Your task to perform on an android device: Search for vegetarian restaurants on Maps Image 0: 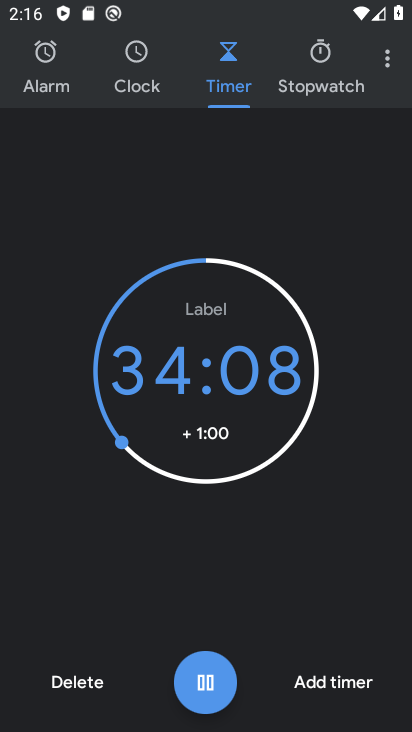
Step 0: press back button
Your task to perform on an android device: Search for vegetarian restaurants on Maps Image 1: 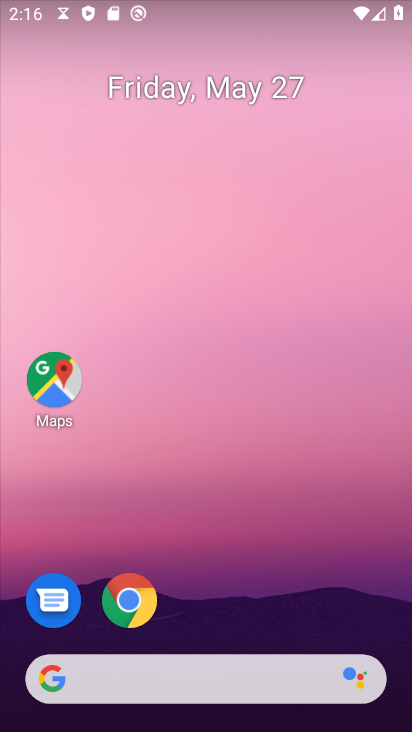
Step 1: drag from (231, 589) to (222, 67)
Your task to perform on an android device: Search for vegetarian restaurants on Maps Image 2: 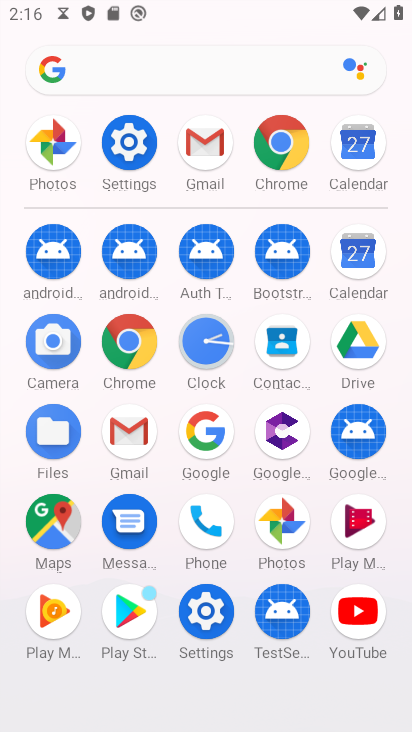
Step 2: click (47, 515)
Your task to perform on an android device: Search for vegetarian restaurants on Maps Image 3: 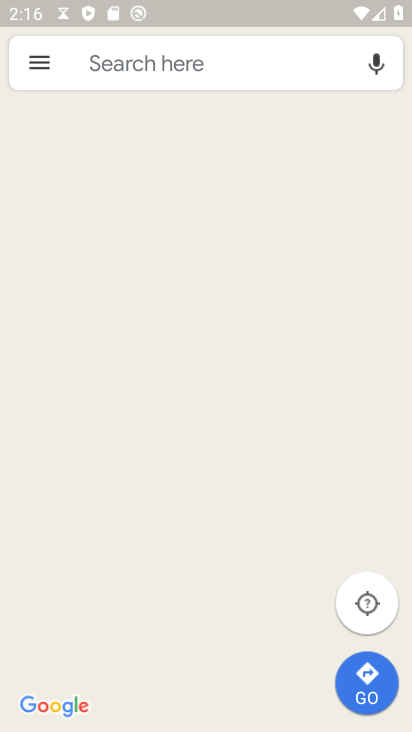
Step 3: click (256, 63)
Your task to perform on an android device: Search for vegetarian restaurants on Maps Image 4: 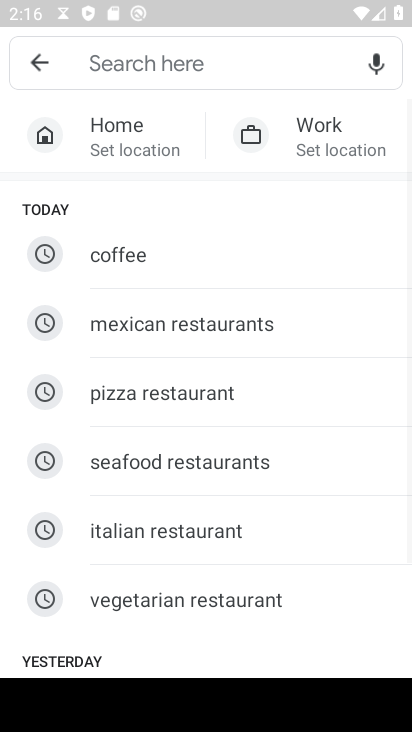
Step 4: type " vegetarian restaurants"
Your task to perform on an android device: Search for vegetarian restaurants on Maps Image 5: 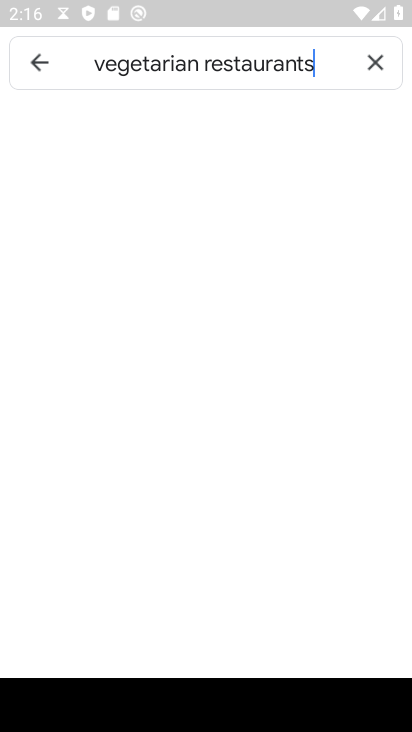
Step 5: type ""
Your task to perform on an android device: Search for vegetarian restaurants on Maps Image 6: 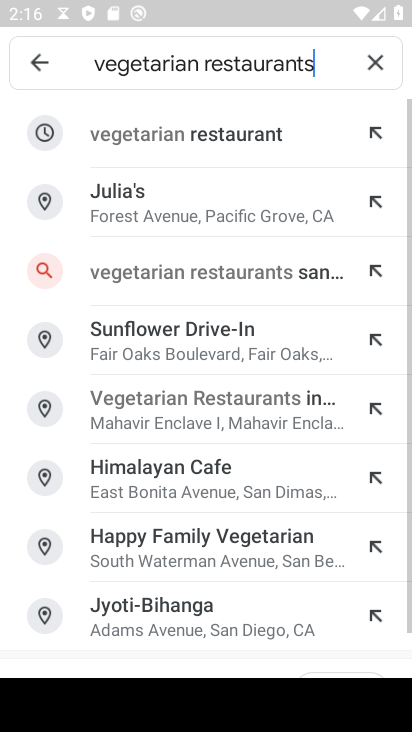
Step 6: click (195, 143)
Your task to perform on an android device: Search for vegetarian restaurants on Maps Image 7: 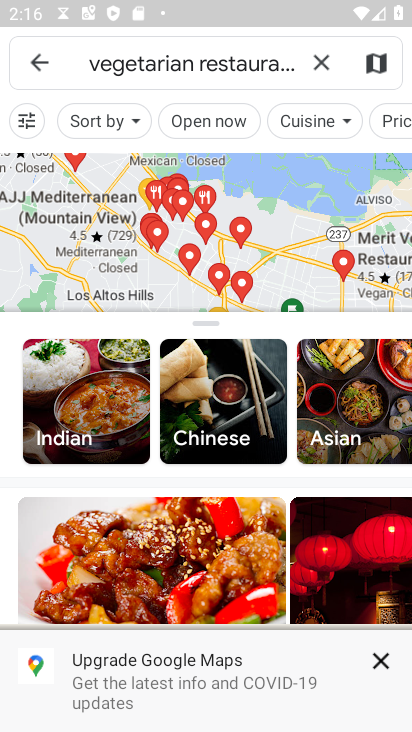
Step 7: click (383, 656)
Your task to perform on an android device: Search for vegetarian restaurants on Maps Image 8: 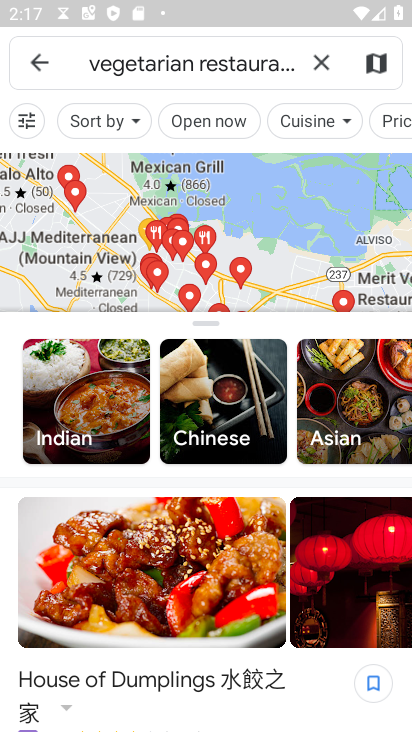
Step 8: task complete